Your task to perform on an android device: Go to Google maps Image 0: 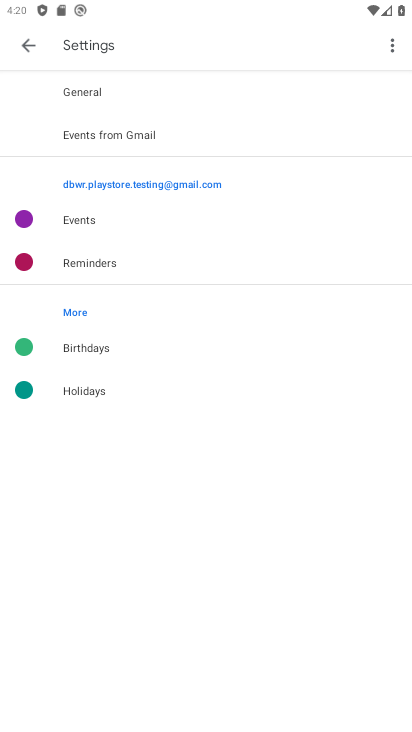
Step 0: press back button
Your task to perform on an android device: Go to Google maps Image 1: 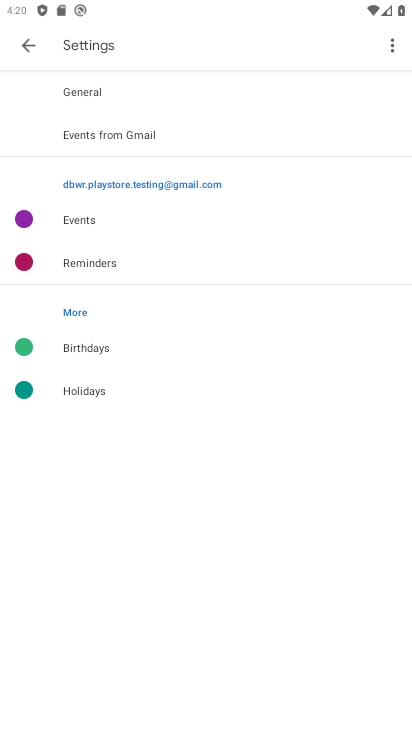
Step 1: press back button
Your task to perform on an android device: Go to Google maps Image 2: 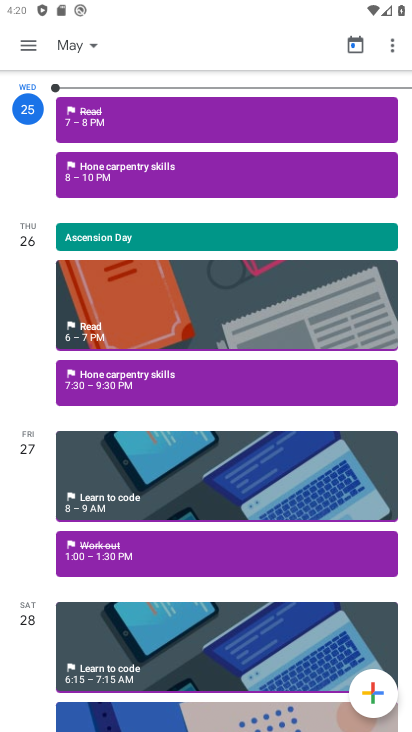
Step 2: press back button
Your task to perform on an android device: Go to Google maps Image 3: 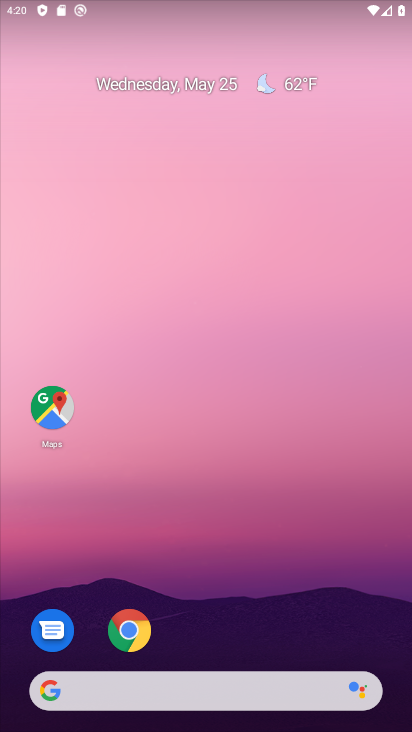
Step 3: click (58, 409)
Your task to perform on an android device: Go to Google maps Image 4: 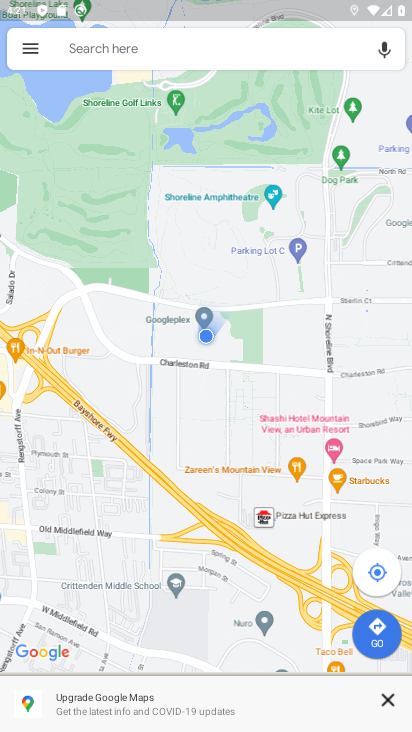
Step 4: task complete